Your task to perform on an android device: Search for seafood restaurants on Google Maps Image 0: 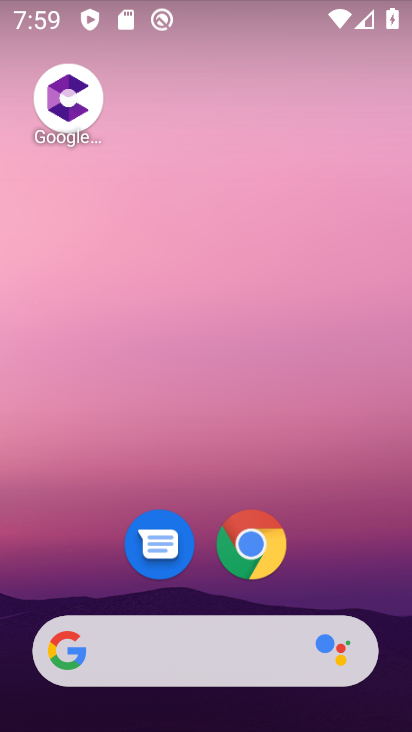
Step 0: drag from (392, 575) to (275, 55)
Your task to perform on an android device: Search for seafood restaurants on Google Maps Image 1: 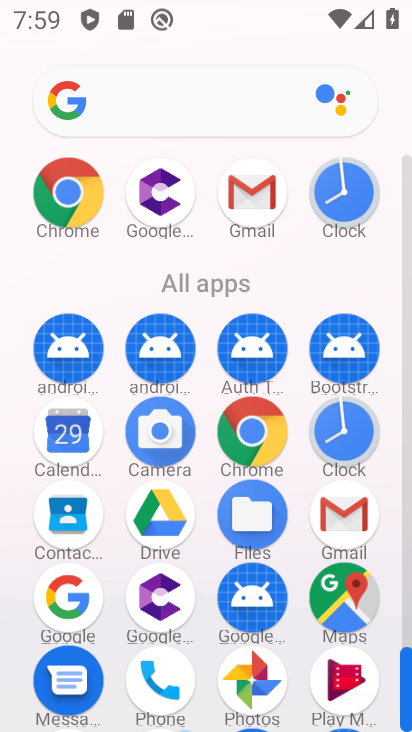
Step 1: drag from (1, 617) to (15, 298)
Your task to perform on an android device: Search for seafood restaurants on Google Maps Image 2: 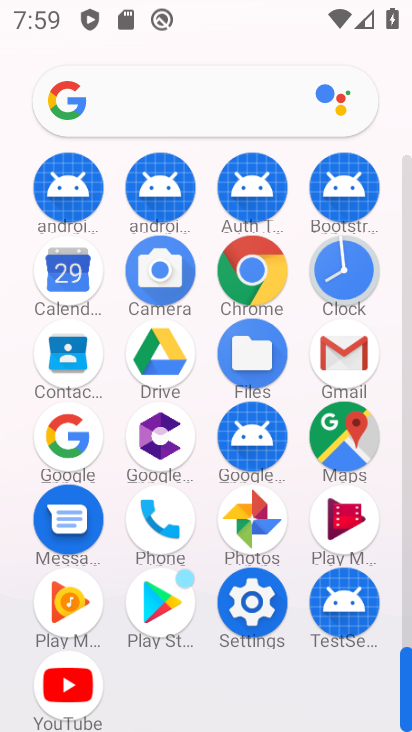
Step 2: click (343, 430)
Your task to perform on an android device: Search for seafood restaurants on Google Maps Image 3: 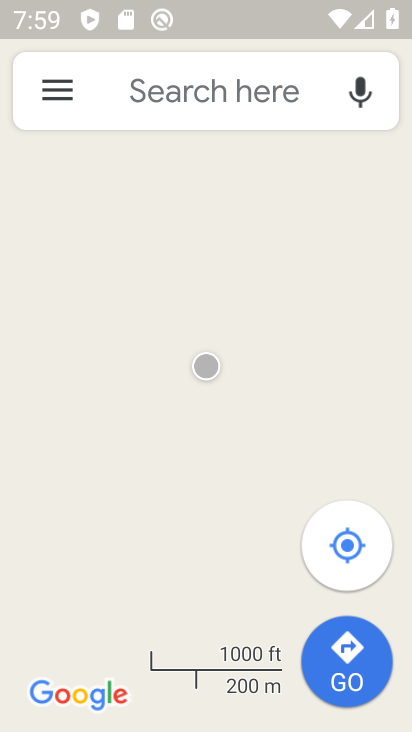
Step 3: click (128, 87)
Your task to perform on an android device: Search for seafood restaurants on Google Maps Image 4: 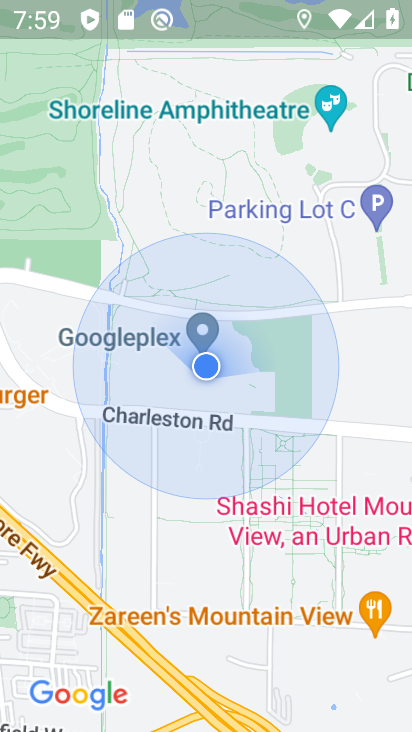
Step 4: drag from (210, 119) to (208, 347)
Your task to perform on an android device: Search for seafood restaurants on Google Maps Image 5: 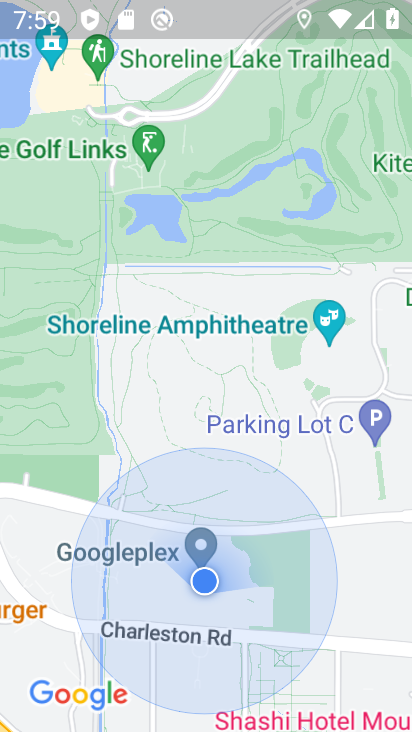
Step 5: drag from (196, 150) to (198, 430)
Your task to perform on an android device: Search for seafood restaurants on Google Maps Image 6: 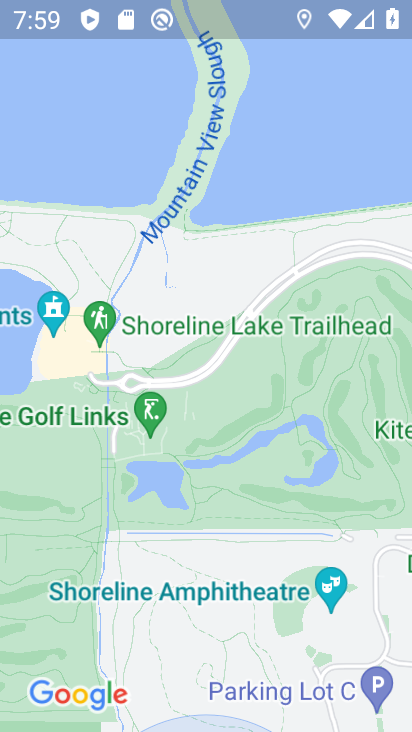
Step 6: click (209, 174)
Your task to perform on an android device: Search for seafood restaurants on Google Maps Image 7: 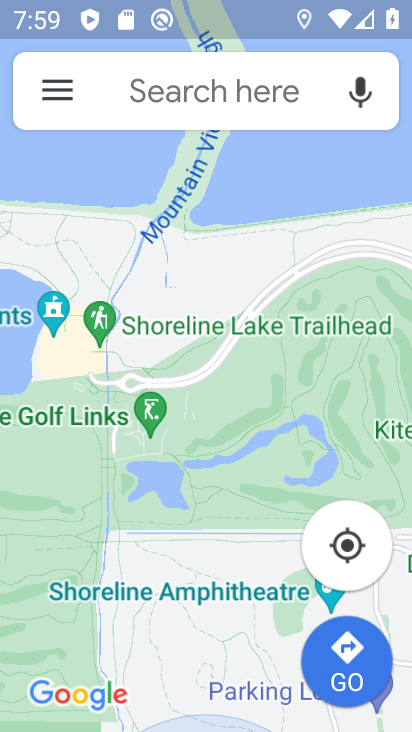
Step 7: click (115, 88)
Your task to perform on an android device: Search for seafood restaurants on Google Maps Image 8: 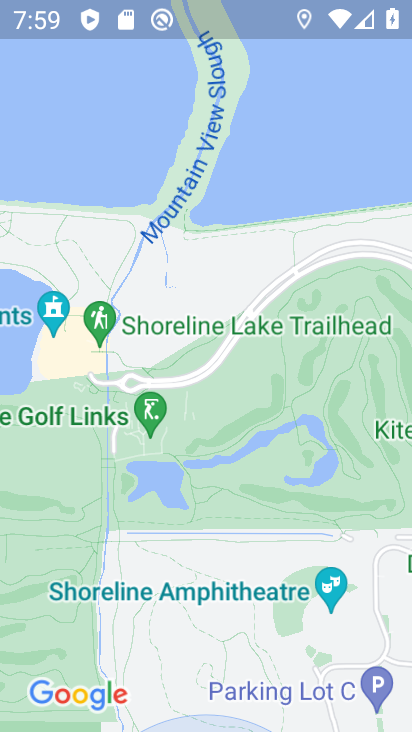
Step 8: click (300, 160)
Your task to perform on an android device: Search for seafood restaurants on Google Maps Image 9: 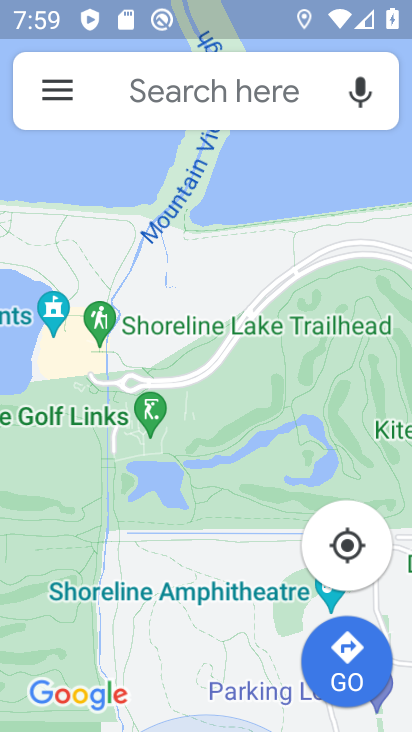
Step 9: click (286, 84)
Your task to perform on an android device: Search for seafood restaurants on Google Maps Image 10: 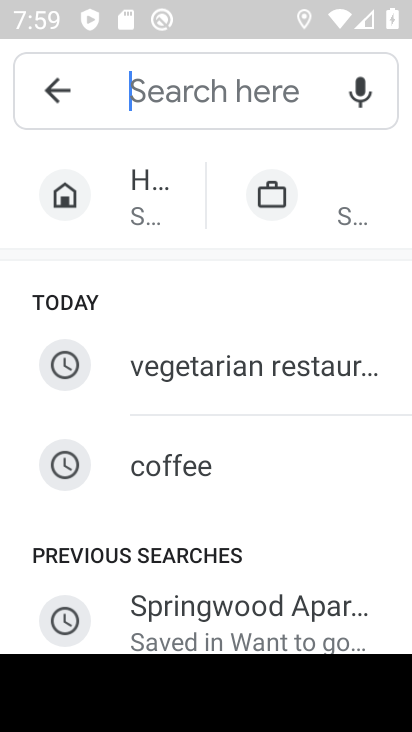
Step 10: type "seafood restaurants"
Your task to perform on an android device: Search for seafood restaurants on Google Maps Image 11: 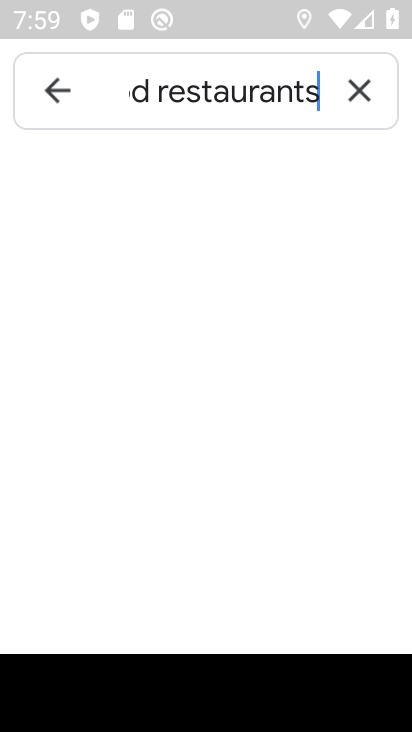
Step 11: type ""
Your task to perform on an android device: Search for seafood restaurants on Google Maps Image 12: 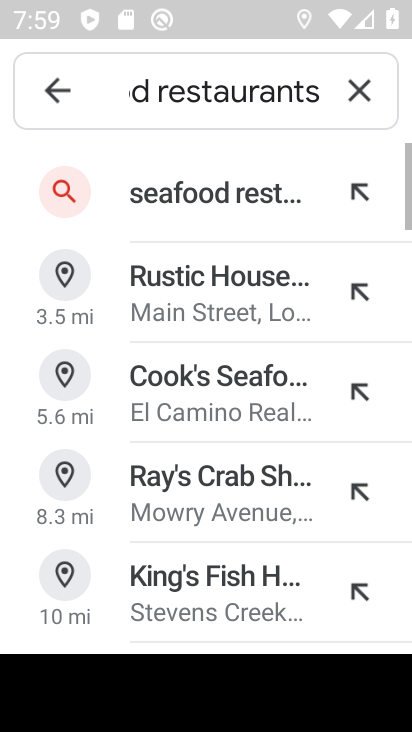
Step 12: click (165, 196)
Your task to perform on an android device: Search for seafood restaurants on Google Maps Image 13: 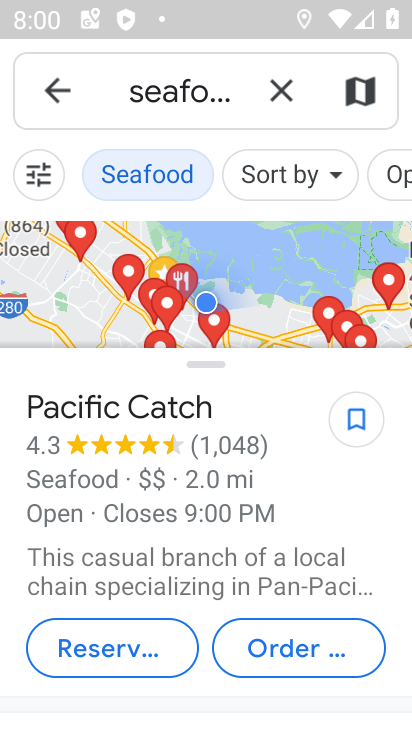
Step 13: task complete